Your task to perform on an android device: Open Chrome and go to settings Image 0: 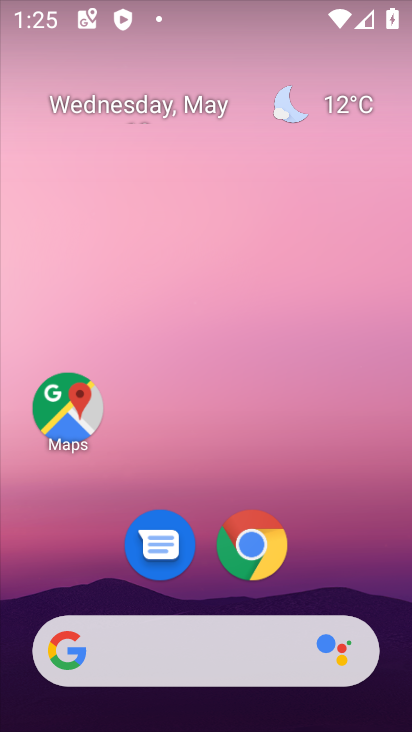
Step 0: click (257, 532)
Your task to perform on an android device: Open Chrome and go to settings Image 1: 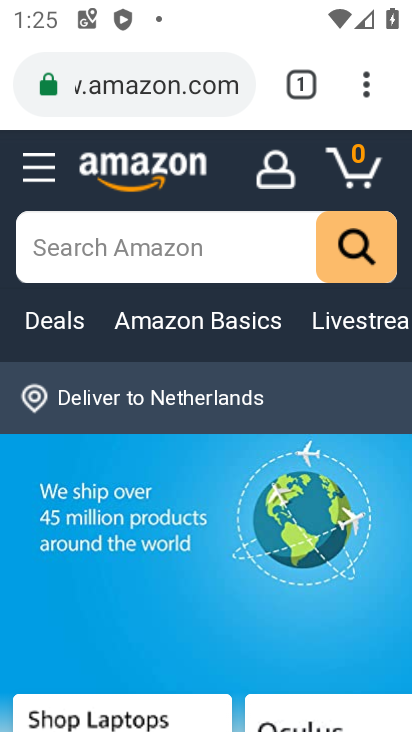
Step 1: click (366, 68)
Your task to perform on an android device: Open Chrome and go to settings Image 2: 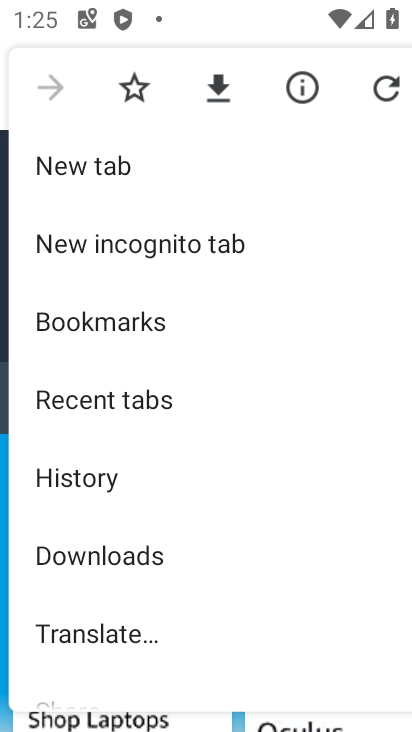
Step 2: drag from (270, 584) to (257, 206)
Your task to perform on an android device: Open Chrome and go to settings Image 3: 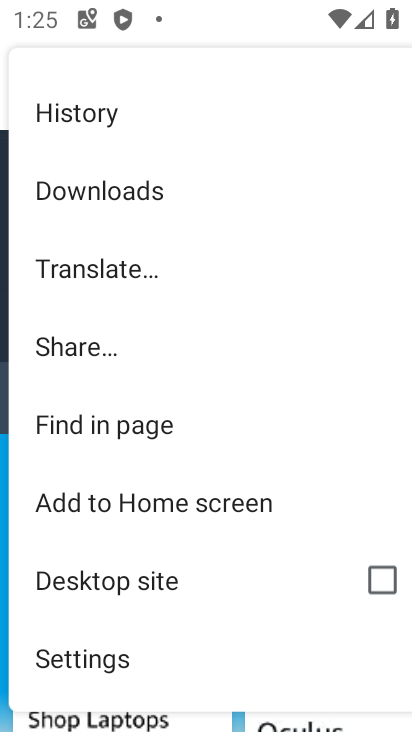
Step 3: click (137, 644)
Your task to perform on an android device: Open Chrome and go to settings Image 4: 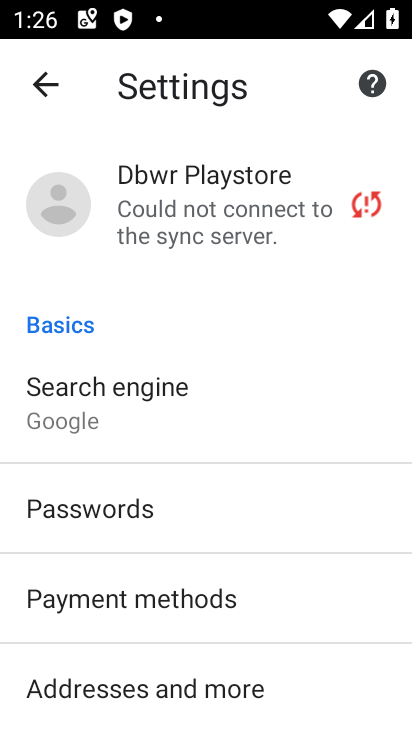
Step 4: task complete